Your task to perform on an android device: add a label to a message in the gmail app Image 0: 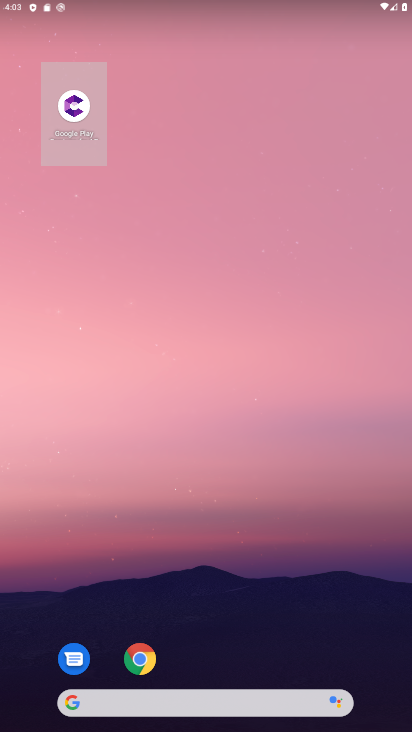
Step 0: drag from (214, 668) to (286, 294)
Your task to perform on an android device: add a label to a message in the gmail app Image 1: 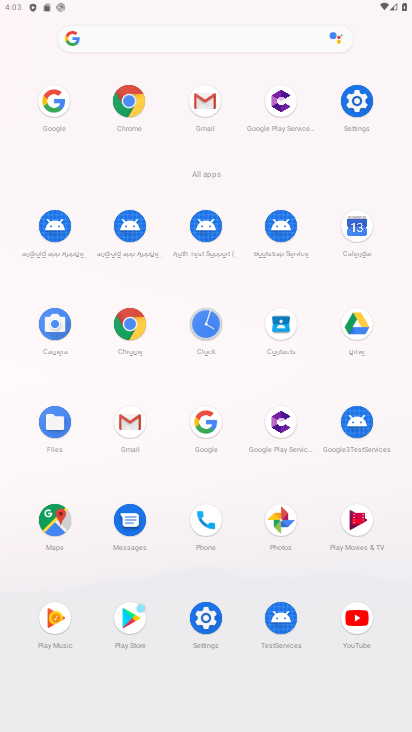
Step 1: click (141, 424)
Your task to perform on an android device: add a label to a message in the gmail app Image 2: 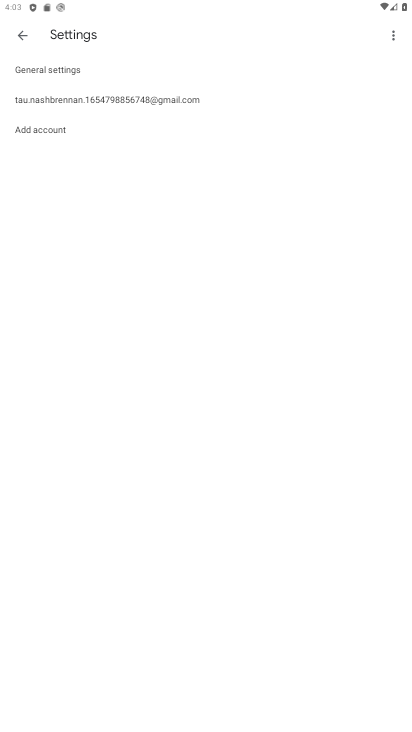
Step 2: press back button
Your task to perform on an android device: add a label to a message in the gmail app Image 3: 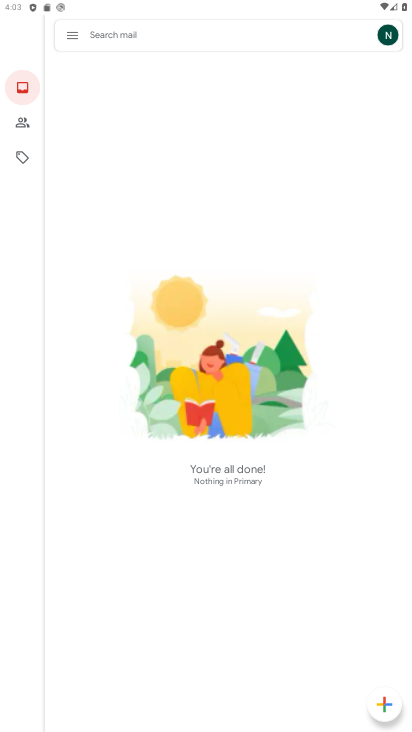
Step 3: click (73, 36)
Your task to perform on an android device: add a label to a message in the gmail app Image 4: 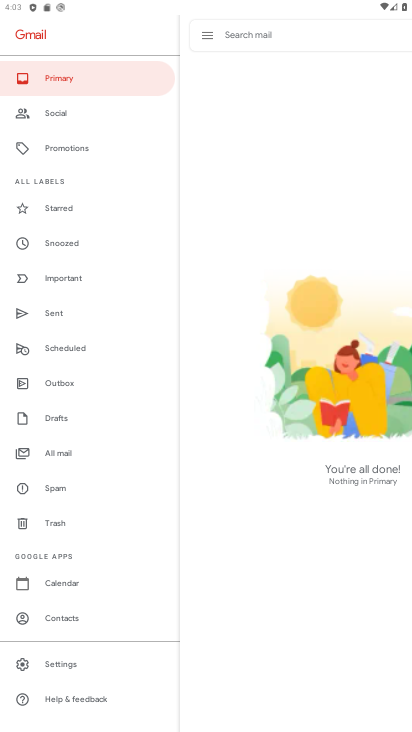
Step 4: click (73, 450)
Your task to perform on an android device: add a label to a message in the gmail app Image 5: 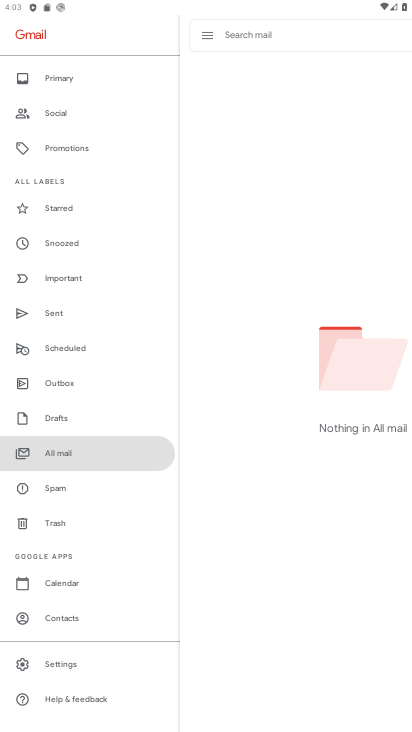
Step 5: task complete